Your task to perform on an android device: toggle pop-ups in chrome Image 0: 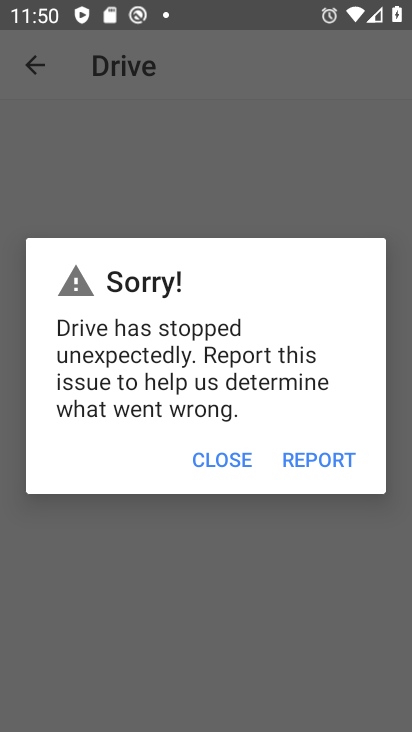
Step 0: press home button
Your task to perform on an android device: toggle pop-ups in chrome Image 1: 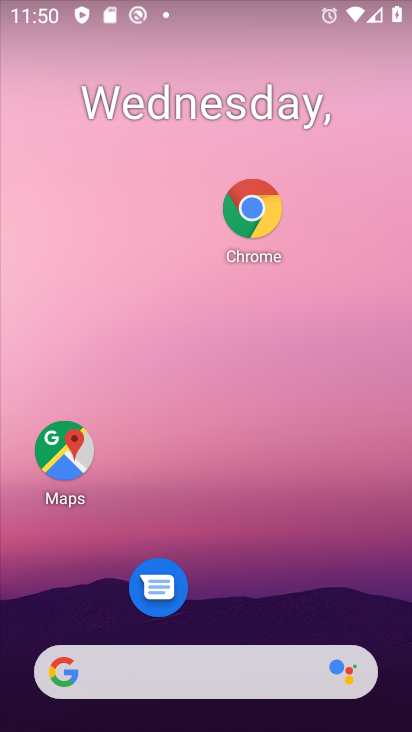
Step 1: click (245, 219)
Your task to perform on an android device: toggle pop-ups in chrome Image 2: 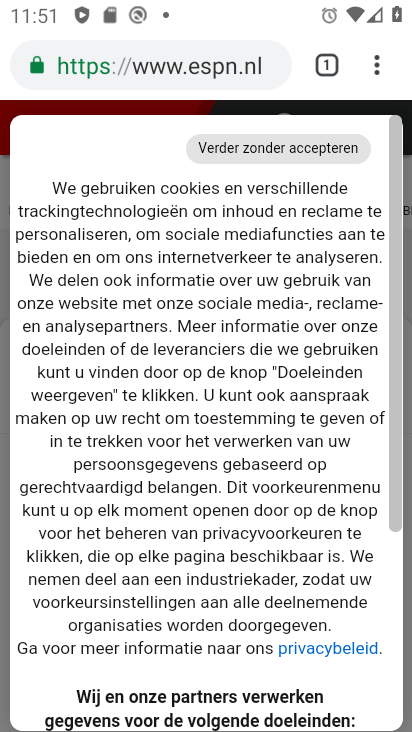
Step 2: click (373, 64)
Your task to perform on an android device: toggle pop-ups in chrome Image 3: 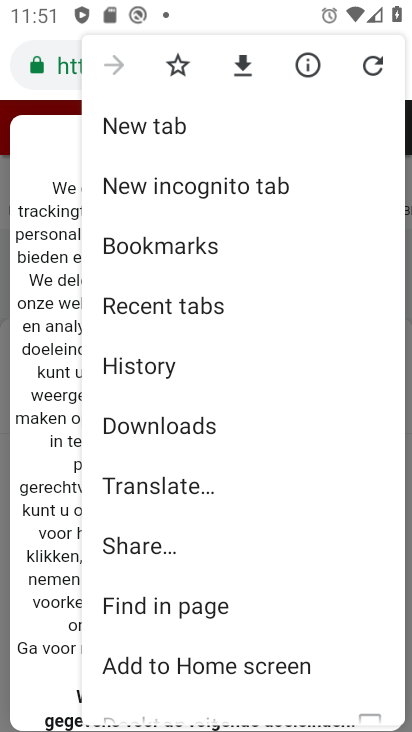
Step 3: drag from (167, 632) to (196, 372)
Your task to perform on an android device: toggle pop-ups in chrome Image 4: 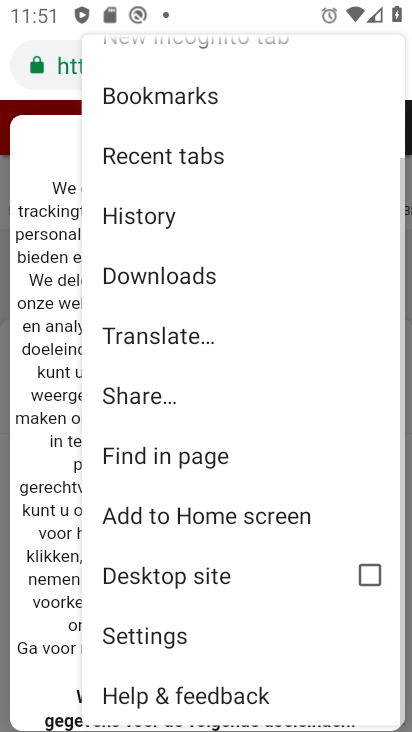
Step 4: click (164, 635)
Your task to perform on an android device: toggle pop-ups in chrome Image 5: 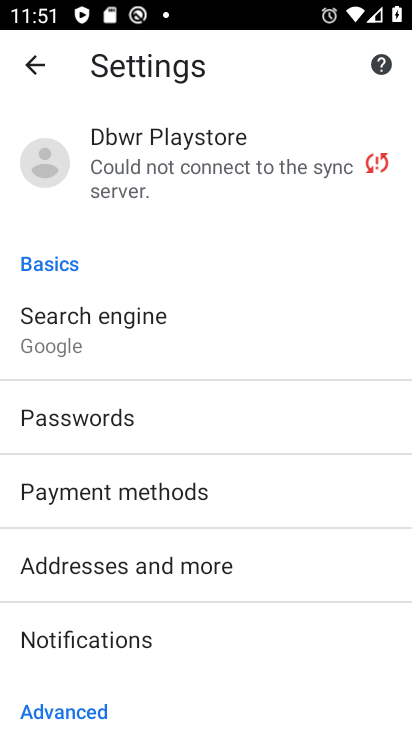
Step 5: drag from (145, 677) to (147, 309)
Your task to perform on an android device: toggle pop-ups in chrome Image 6: 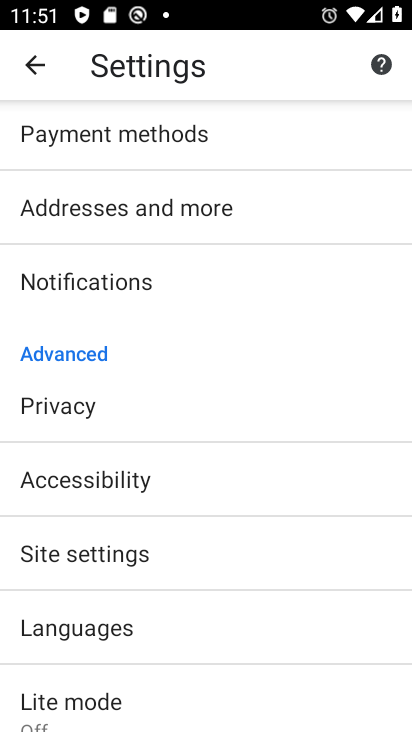
Step 6: click (95, 552)
Your task to perform on an android device: toggle pop-ups in chrome Image 7: 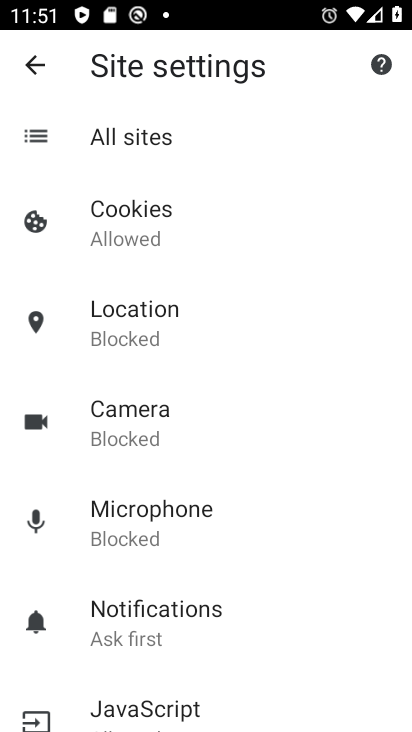
Step 7: drag from (187, 689) to (200, 439)
Your task to perform on an android device: toggle pop-ups in chrome Image 8: 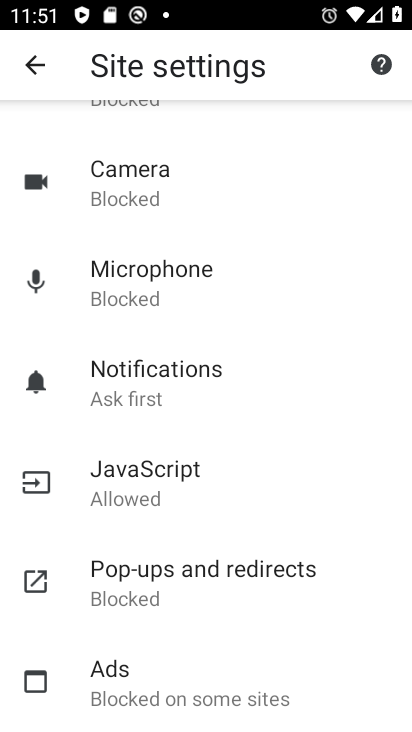
Step 8: click (206, 571)
Your task to perform on an android device: toggle pop-ups in chrome Image 9: 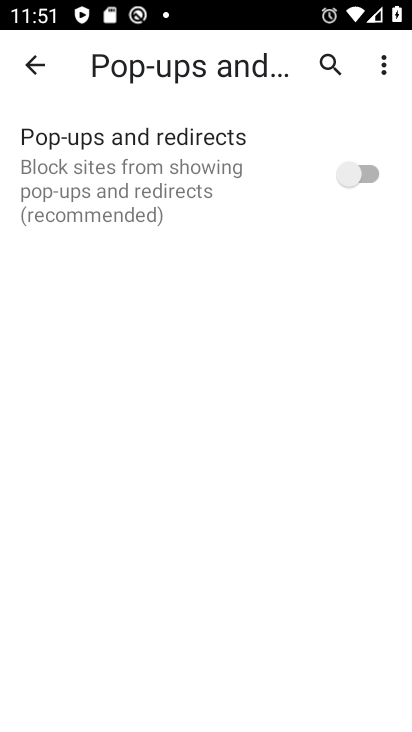
Step 9: click (358, 177)
Your task to perform on an android device: toggle pop-ups in chrome Image 10: 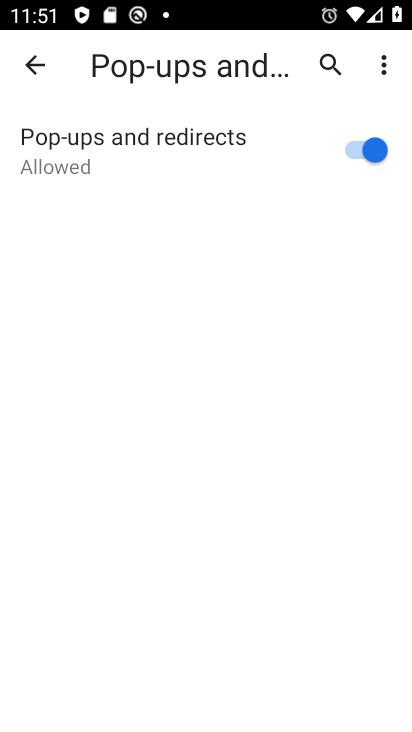
Step 10: task complete